Your task to perform on an android device: turn notification dots on Image 0: 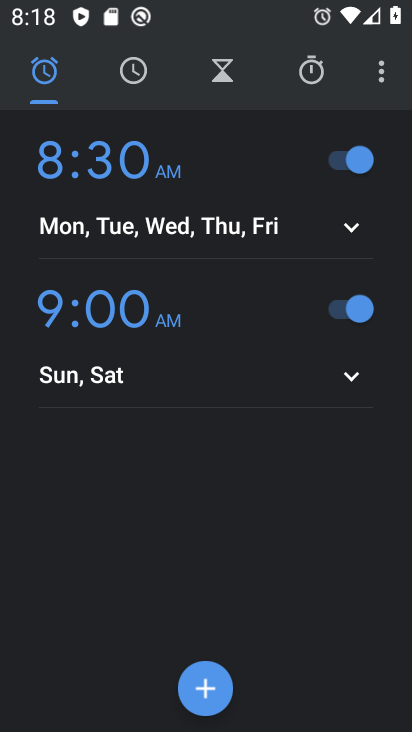
Step 0: press home button
Your task to perform on an android device: turn notification dots on Image 1: 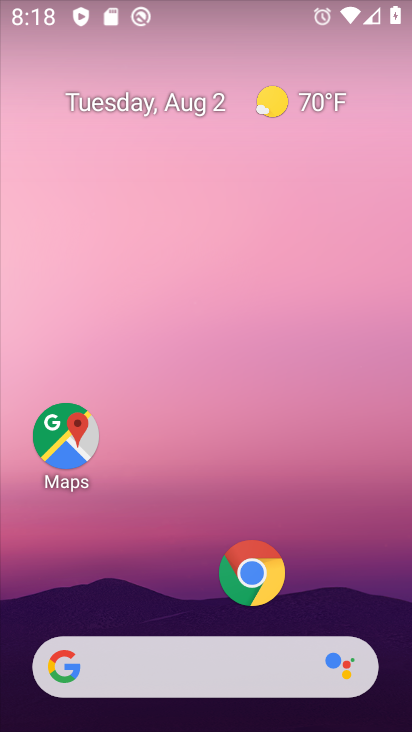
Step 1: drag from (194, 594) to (231, 113)
Your task to perform on an android device: turn notification dots on Image 2: 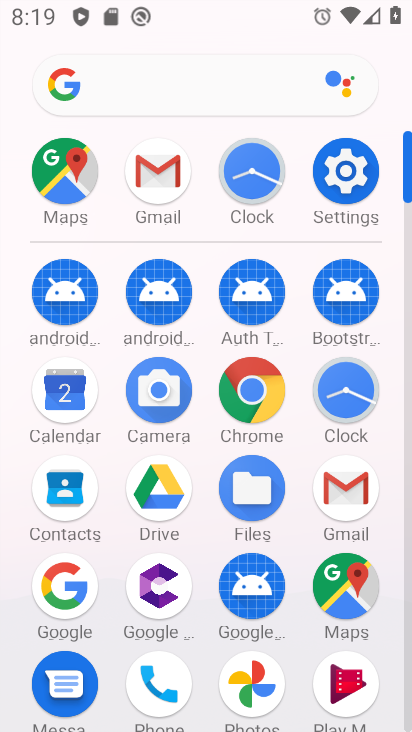
Step 2: click (337, 162)
Your task to perform on an android device: turn notification dots on Image 3: 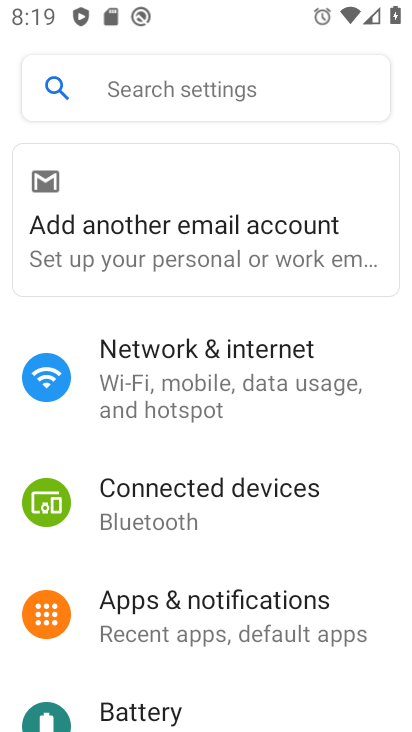
Step 3: click (226, 608)
Your task to perform on an android device: turn notification dots on Image 4: 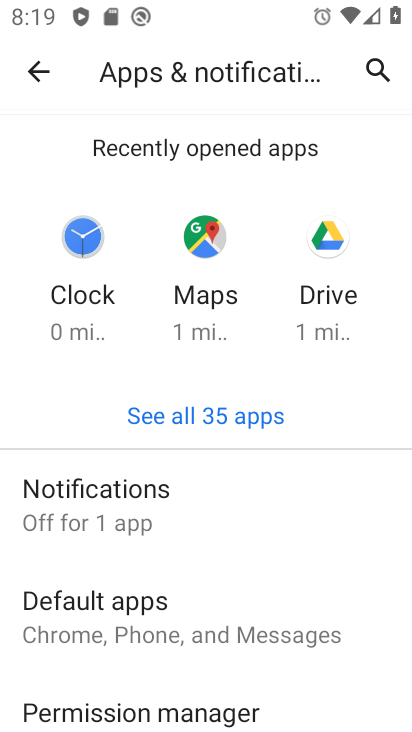
Step 4: click (177, 498)
Your task to perform on an android device: turn notification dots on Image 5: 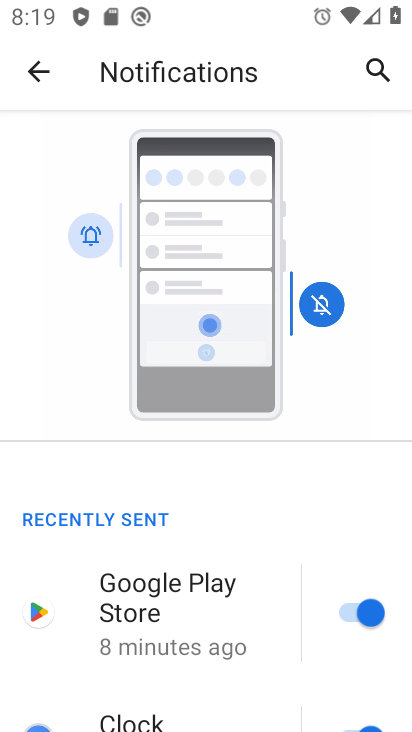
Step 5: drag from (237, 674) to (205, 261)
Your task to perform on an android device: turn notification dots on Image 6: 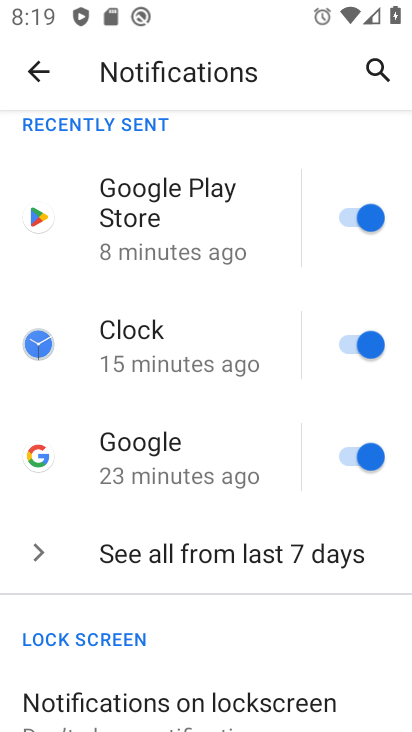
Step 6: drag from (206, 670) to (218, 228)
Your task to perform on an android device: turn notification dots on Image 7: 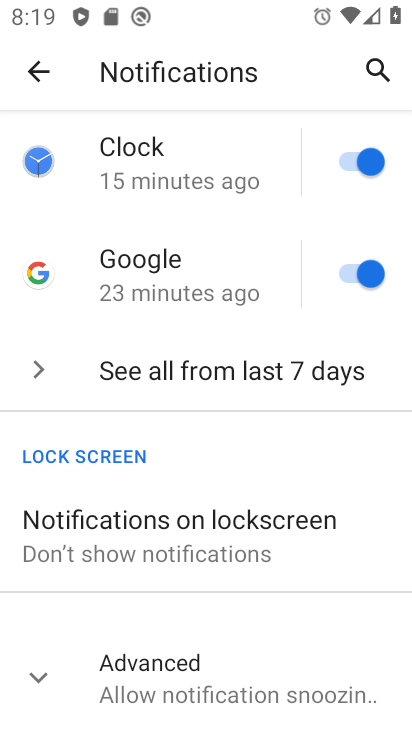
Step 7: click (48, 665)
Your task to perform on an android device: turn notification dots on Image 8: 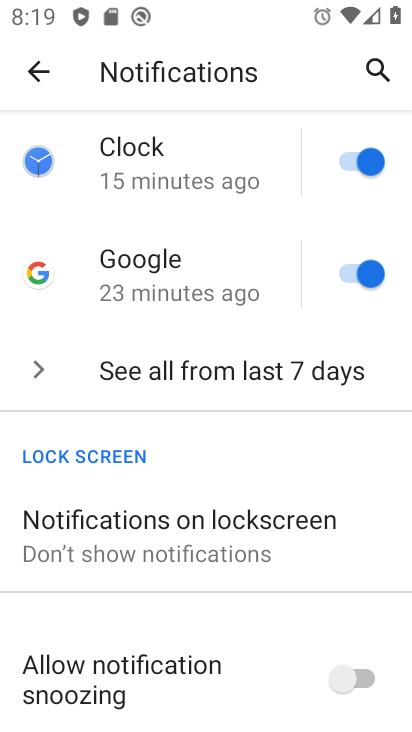
Step 8: task complete